Your task to perform on an android device: Open the phone app and click the voicemail tab. Image 0: 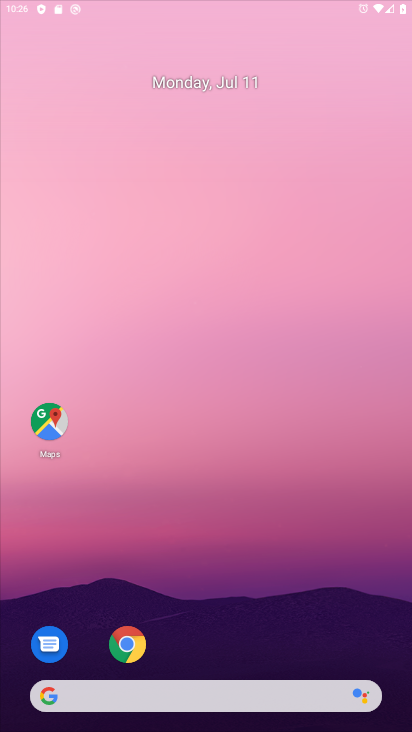
Step 0: click (252, 205)
Your task to perform on an android device: Open the phone app and click the voicemail tab. Image 1: 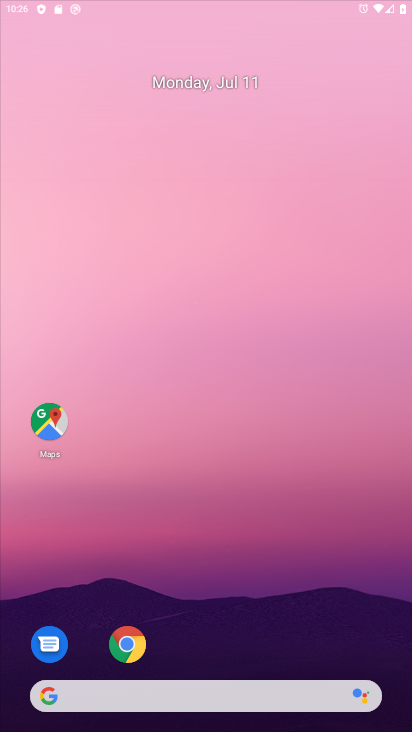
Step 1: press home button
Your task to perform on an android device: Open the phone app and click the voicemail tab. Image 2: 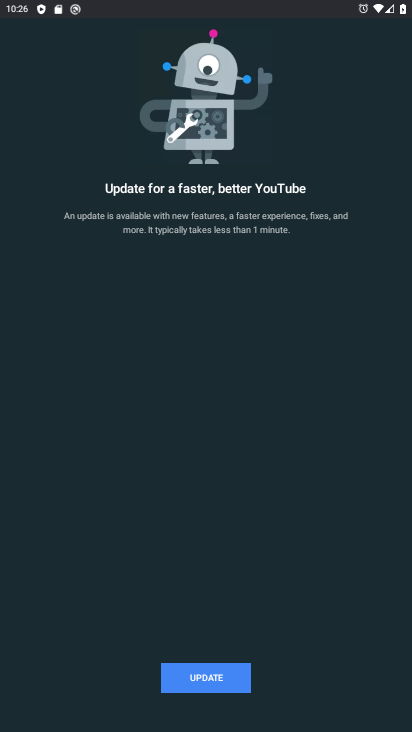
Step 2: press home button
Your task to perform on an android device: Open the phone app and click the voicemail tab. Image 3: 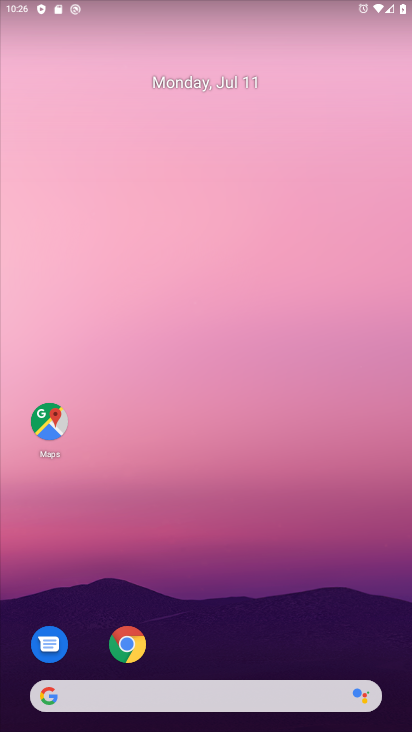
Step 3: drag from (297, 626) to (316, 1)
Your task to perform on an android device: Open the phone app and click the voicemail tab. Image 4: 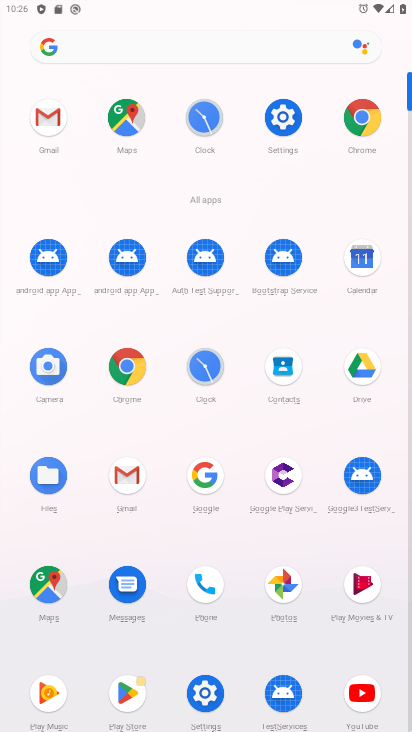
Step 4: click (187, 584)
Your task to perform on an android device: Open the phone app and click the voicemail tab. Image 5: 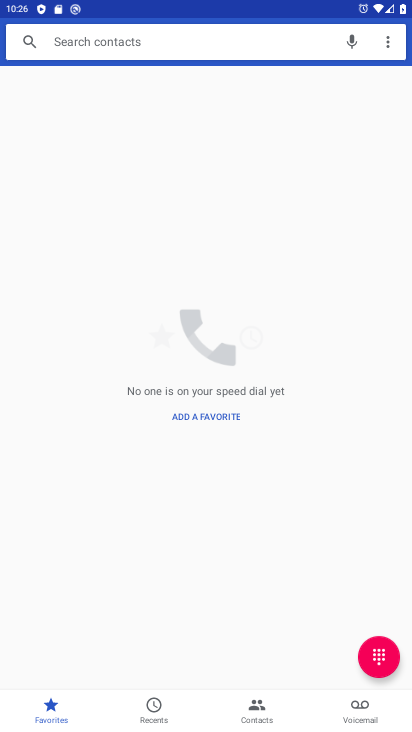
Step 5: click (368, 697)
Your task to perform on an android device: Open the phone app and click the voicemail tab. Image 6: 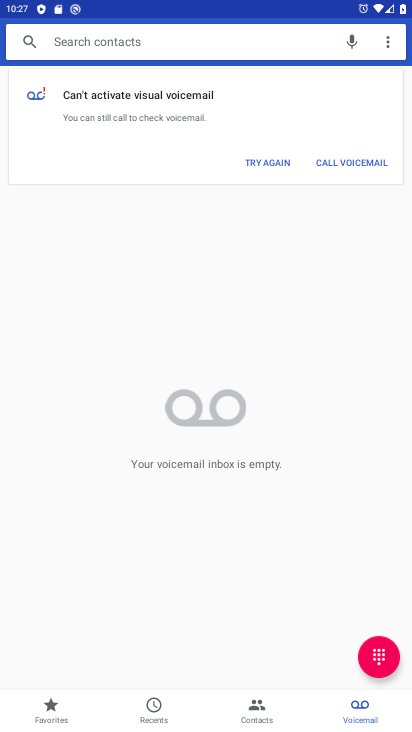
Step 6: task complete